Your task to perform on an android device: turn on airplane mode Image 0: 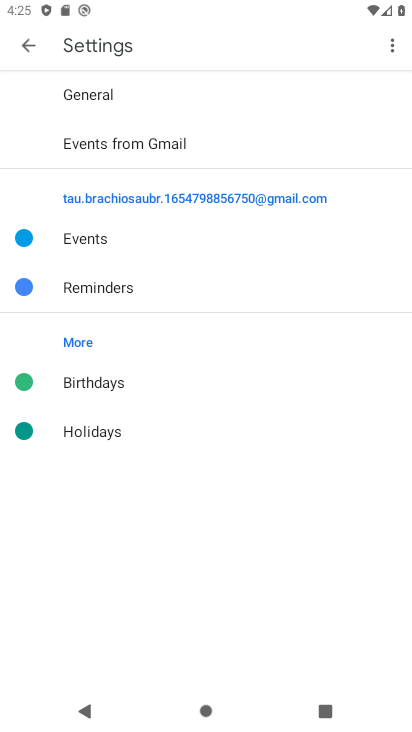
Step 0: press home button
Your task to perform on an android device: turn on airplane mode Image 1: 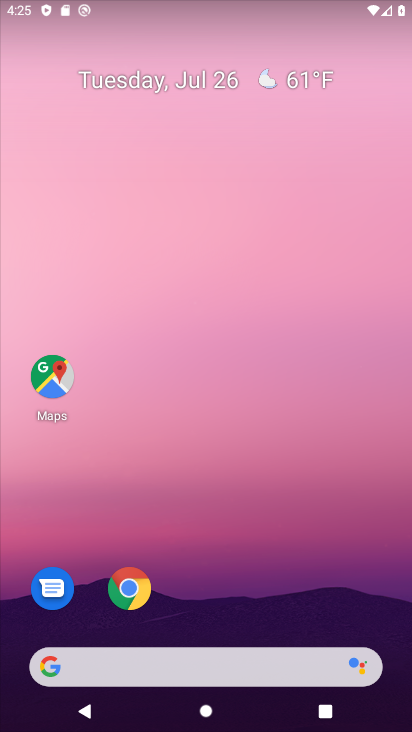
Step 1: drag from (183, 577) to (257, 103)
Your task to perform on an android device: turn on airplane mode Image 2: 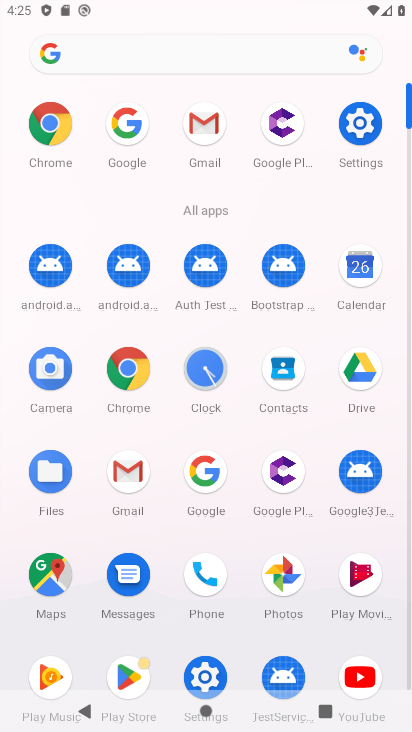
Step 2: click (359, 122)
Your task to perform on an android device: turn on airplane mode Image 3: 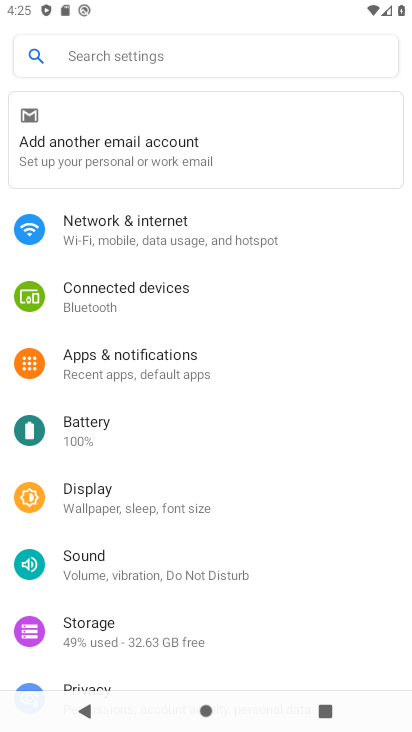
Step 3: click (85, 226)
Your task to perform on an android device: turn on airplane mode Image 4: 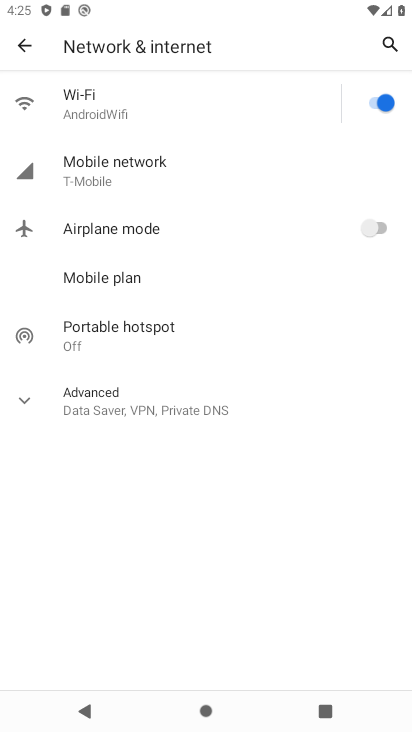
Step 4: click (98, 227)
Your task to perform on an android device: turn on airplane mode Image 5: 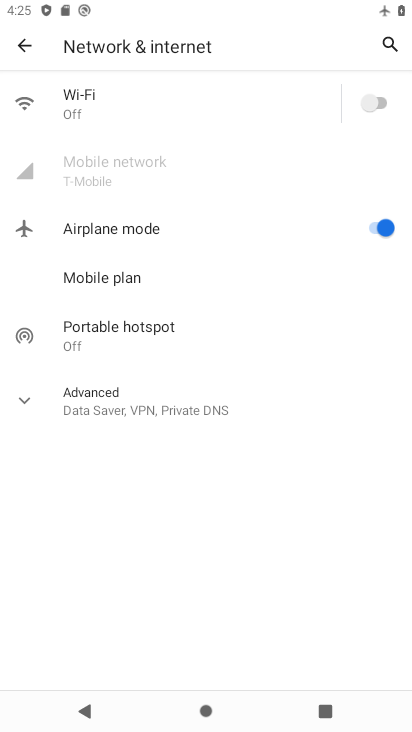
Step 5: task complete